Your task to perform on an android device: Go to Wikipedia Image 0: 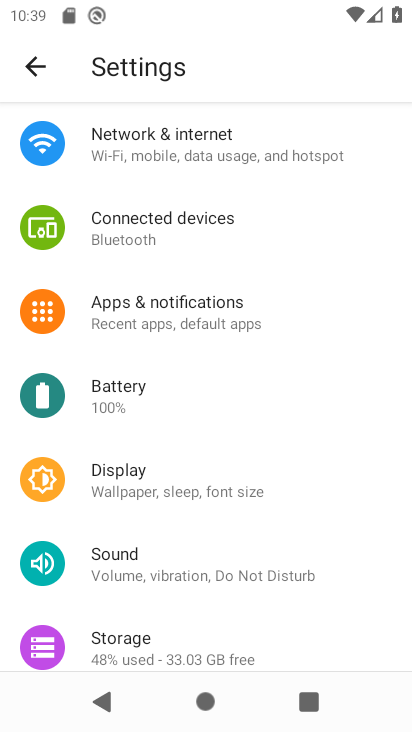
Step 0: press home button
Your task to perform on an android device: Go to Wikipedia Image 1: 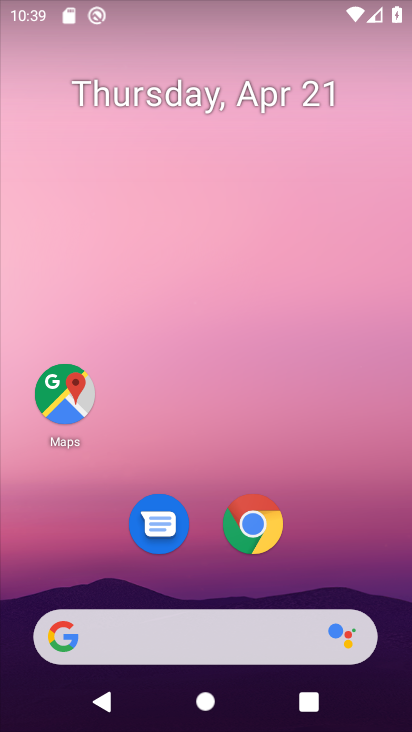
Step 1: click (255, 526)
Your task to perform on an android device: Go to Wikipedia Image 2: 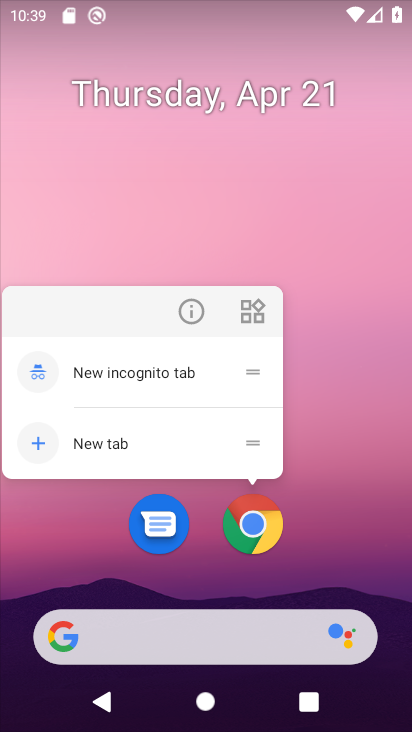
Step 2: click (255, 526)
Your task to perform on an android device: Go to Wikipedia Image 3: 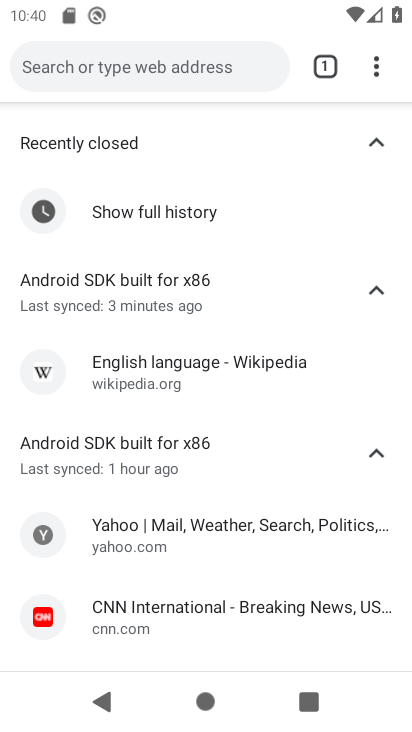
Step 3: press back button
Your task to perform on an android device: Go to Wikipedia Image 4: 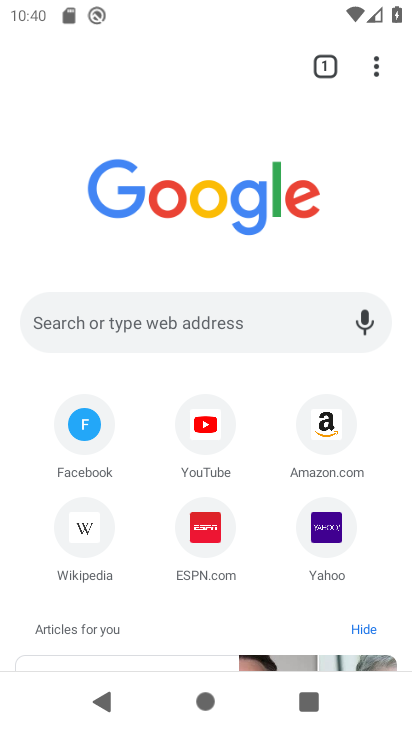
Step 4: click (86, 527)
Your task to perform on an android device: Go to Wikipedia Image 5: 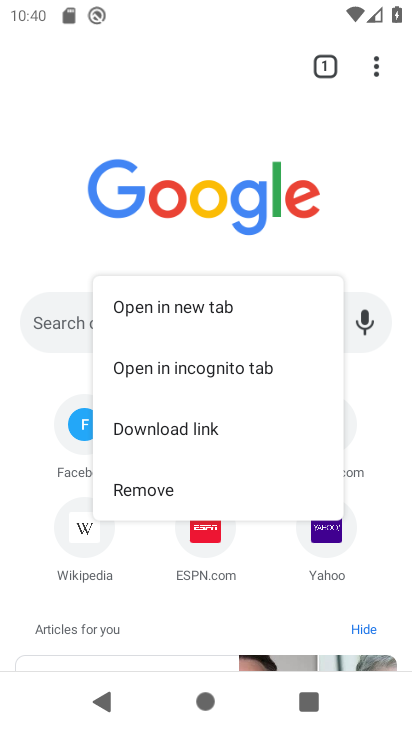
Step 5: click (95, 531)
Your task to perform on an android device: Go to Wikipedia Image 6: 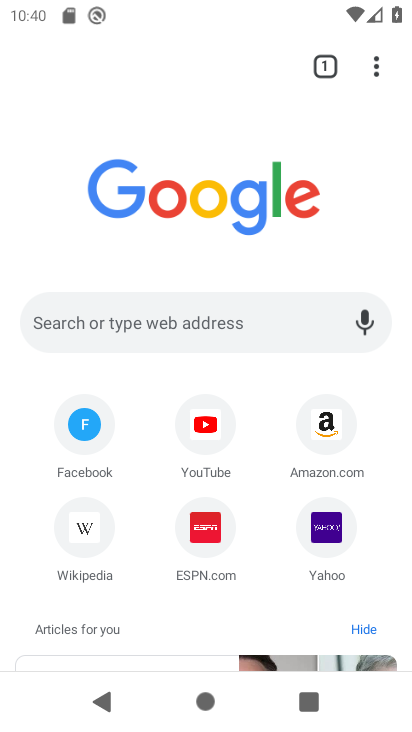
Step 6: click (95, 531)
Your task to perform on an android device: Go to Wikipedia Image 7: 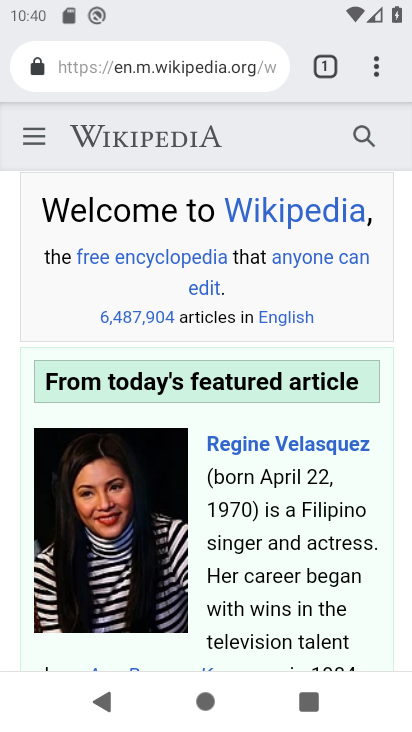
Step 7: task complete